Your task to perform on an android device: Open Google Maps and go to "Timeline" Image 0: 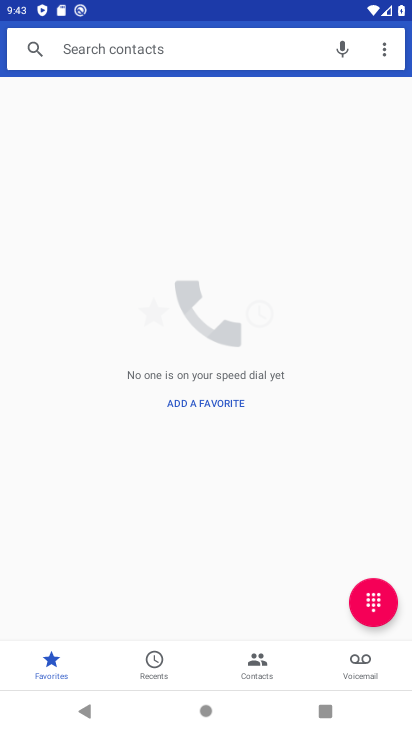
Step 0: drag from (268, 709) to (159, 66)
Your task to perform on an android device: Open Google Maps and go to "Timeline" Image 1: 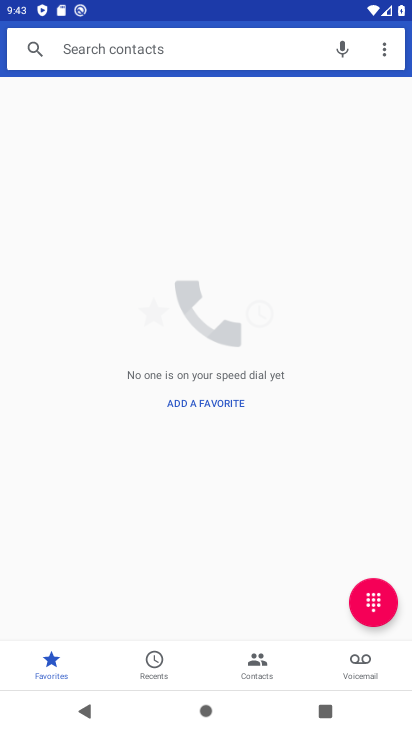
Step 1: press back button
Your task to perform on an android device: Open Google Maps and go to "Timeline" Image 2: 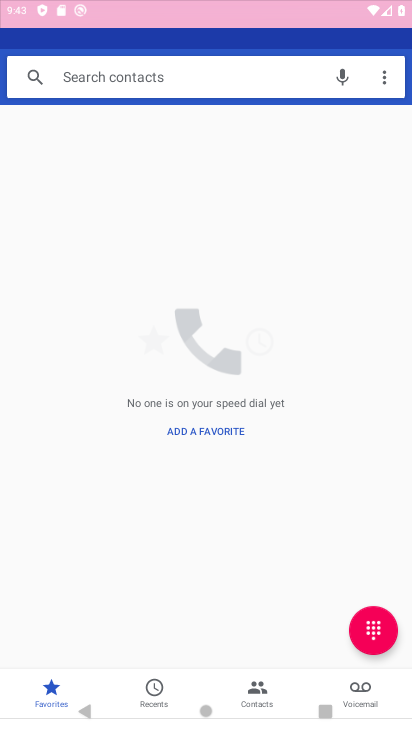
Step 2: press back button
Your task to perform on an android device: Open Google Maps and go to "Timeline" Image 3: 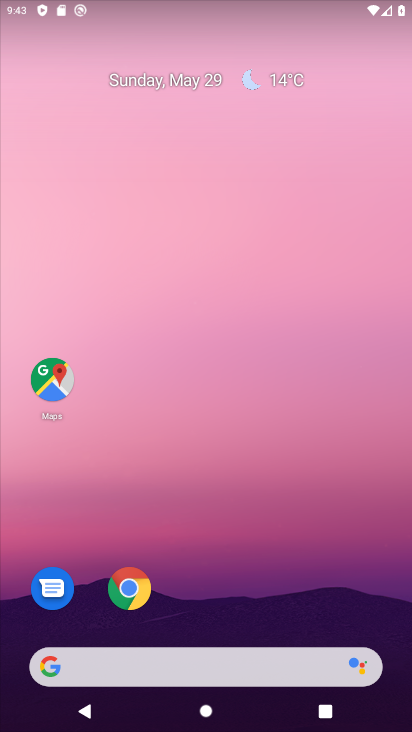
Step 3: drag from (239, 640) to (119, 162)
Your task to perform on an android device: Open Google Maps and go to "Timeline" Image 4: 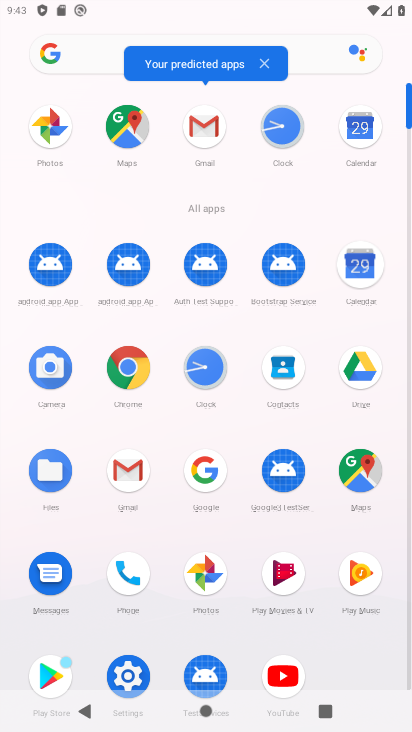
Step 4: click (349, 478)
Your task to perform on an android device: Open Google Maps and go to "Timeline" Image 5: 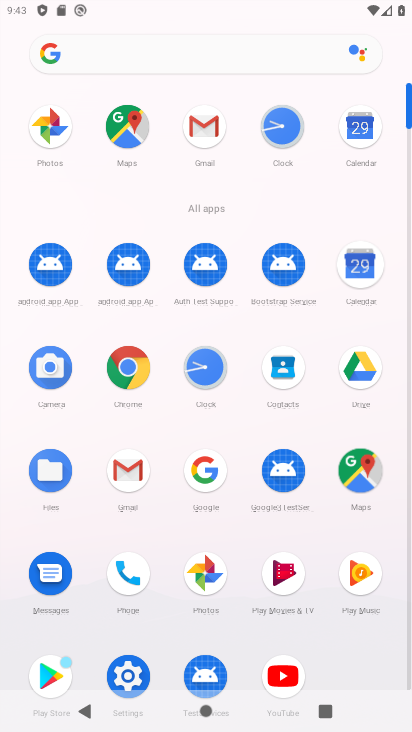
Step 5: click (354, 474)
Your task to perform on an android device: Open Google Maps and go to "Timeline" Image 6: 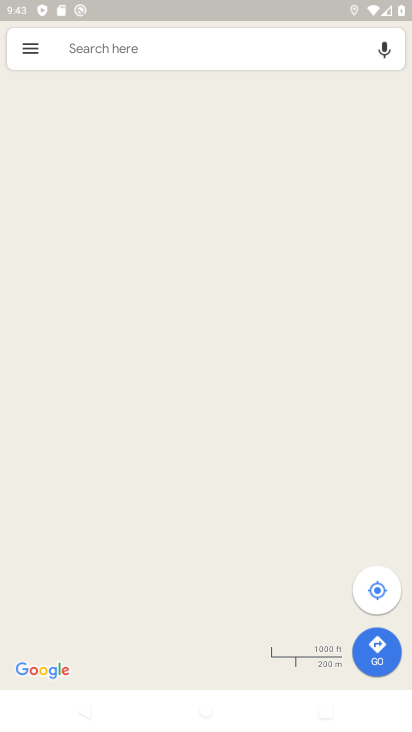
Step 6: click (20, 41)
Your task to perform on an android device: Open Google Maps and go to "Timeline" Image 7: 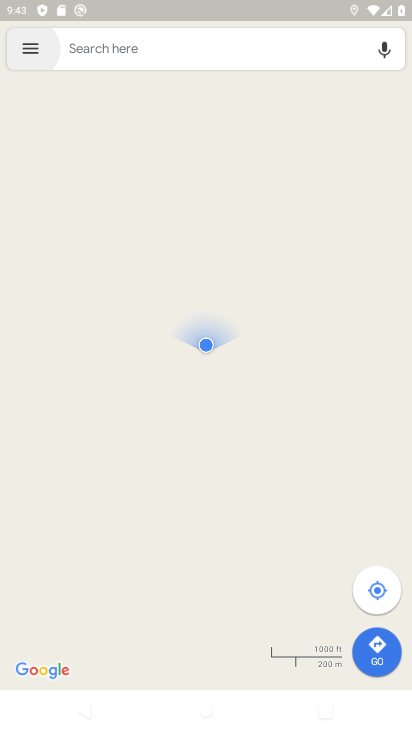
Step 7: click (23, 42)
Your task to perform on an android device: Open Google Maps and go to "Timeline" Image 8: 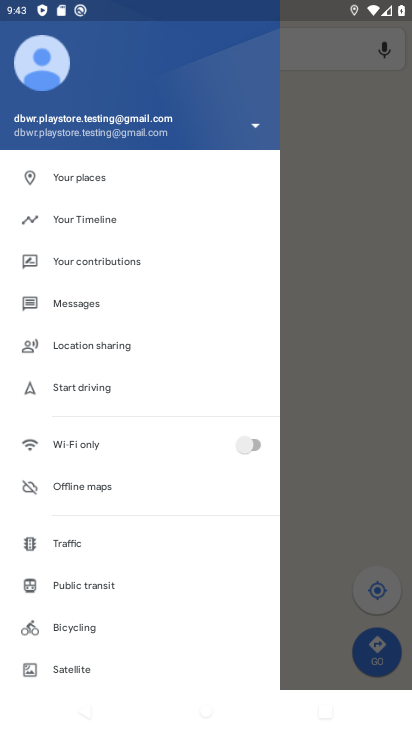
Step 8: click (87, 226)
Your task to perform on an android device: Open Google Maps and go to "Timeline" Image 9: 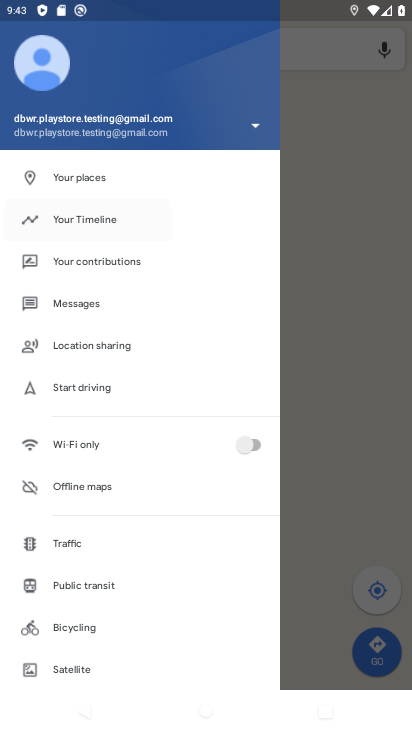
Step 9: click (87, 226)
Your task to perform on an android device: Open Google Maps and go to "Timeline" Image 10: 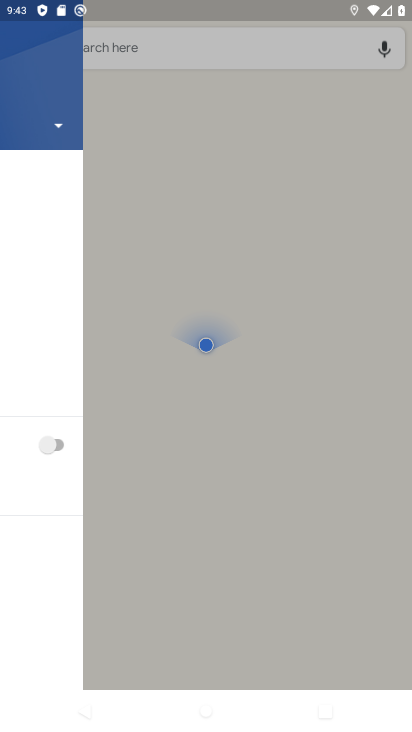
Step 10: click (93, 222)
Your task to perform on an android device: Open Google Maps and go to "Timeline" Image 11: 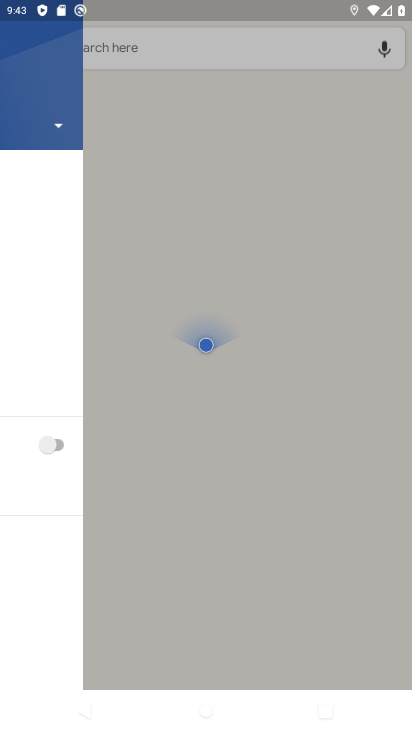
Step 11: click (94, 222)
Your task to perform on an android device: Open Google Maps and go to "Timeline" Image 12: 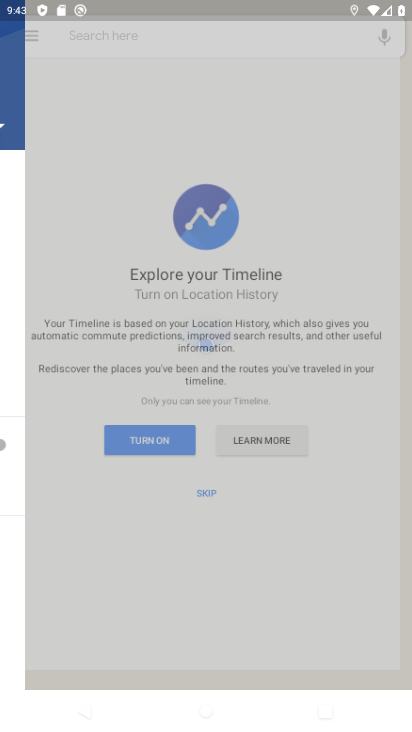
Step 12: click (95, 221)
Your task to perform on an android device: Open Google Maps and go to "Timeline" Image 13: 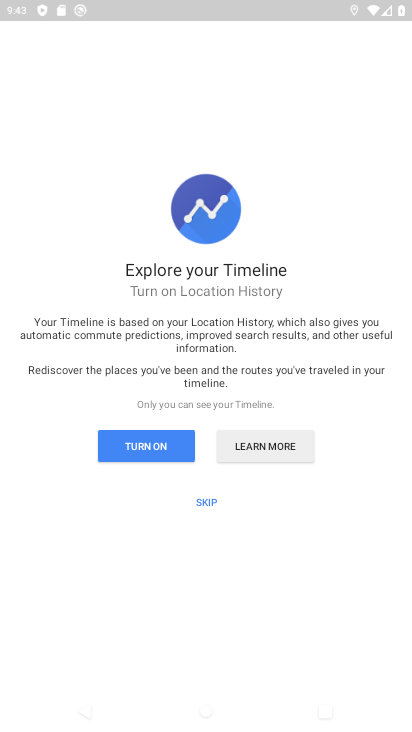
Step 13: click (148, 441)
Your task to perform on an android device: Open Google Maps and go to "Timeline" Image 14: 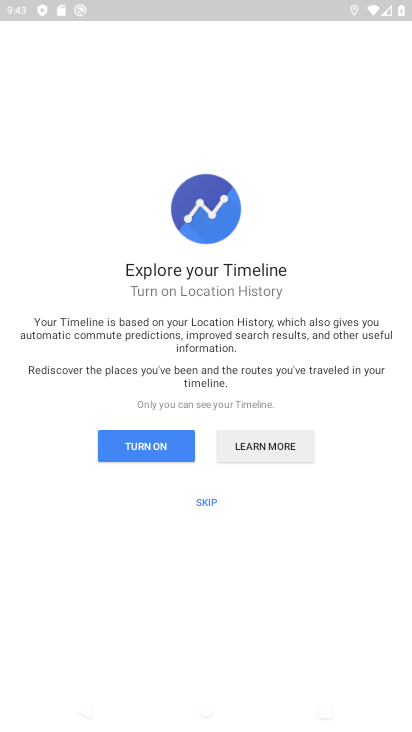
Step 14: click (148, 441)
Your task to perform on an android device: Open Google Maps and go to "Timeline" Image 15: 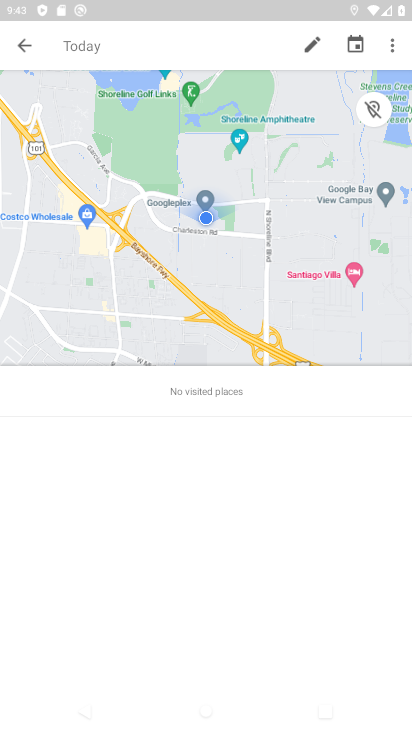
Step 15: task complete